Your task to perform on an android device: Is it going to rain today? Image 0: 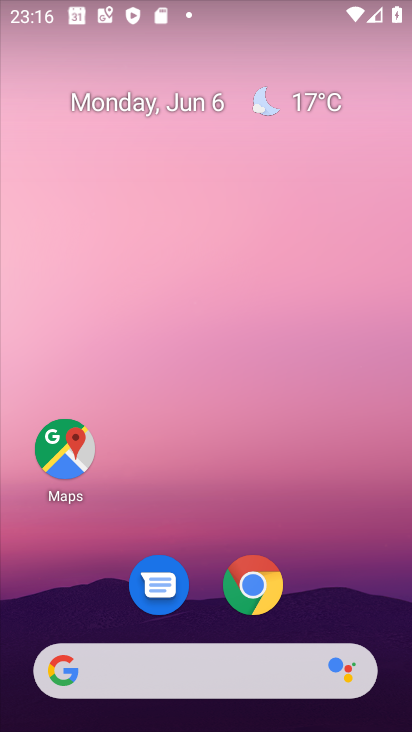
Step 0: click (262, 92)
Your task to perform on an android device: Is it going to rain today? Image 1: 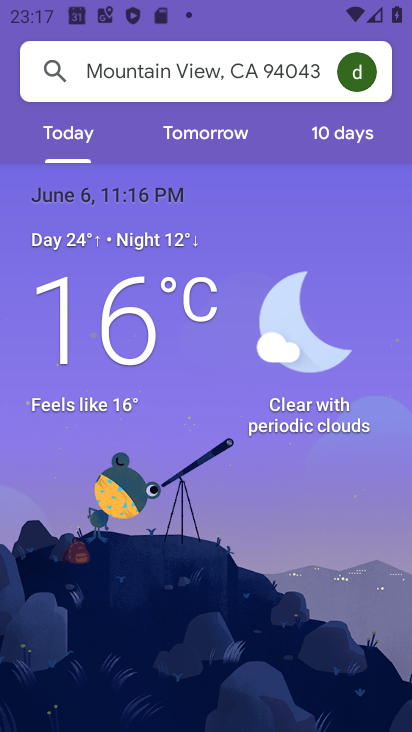
Step 1: task complete